Your task to perform on an android device: Open eBay Image 0: 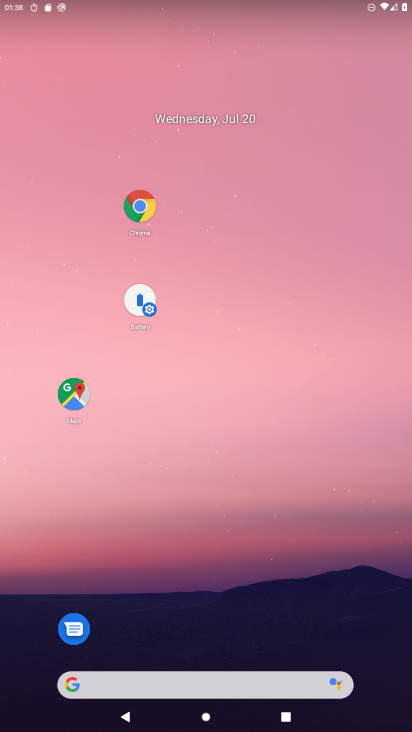
Step 0: drag from (143, 622) to (306, 32)
Your task to perform on an android device: Open eBay Image 1: 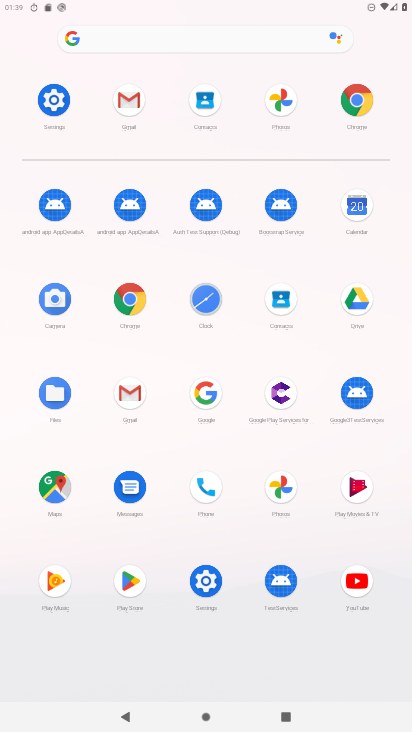
Step 1: click (160, 43)
Your task to perform on an android device: Open eBay Image 2: 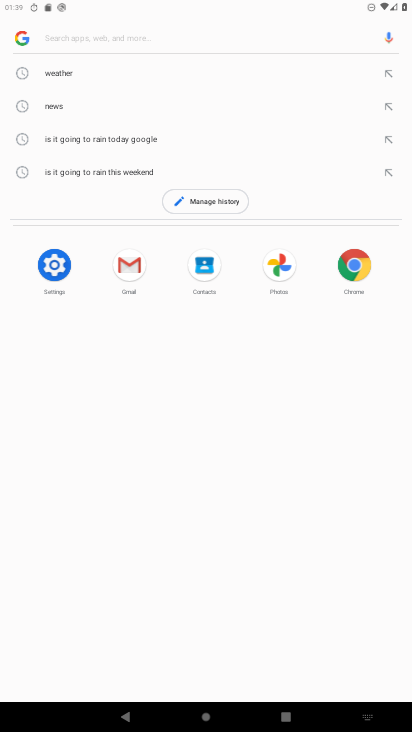
Step 2: type "ebay"
Your task to perform on an android device: Open eBay Image 3: 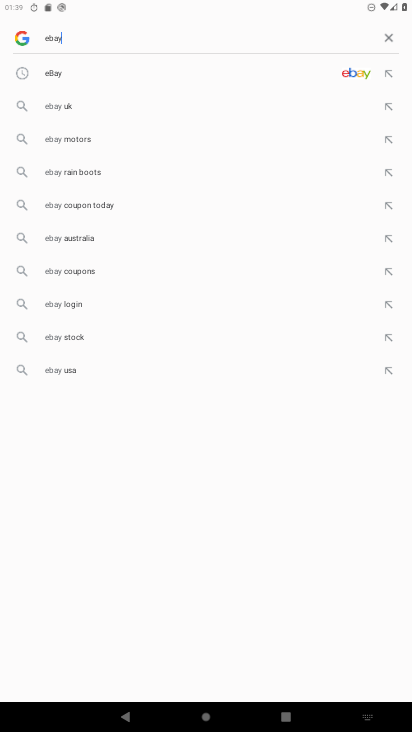
Step 3: click (143, 69)
Your task to perform on an android device: Open eBay Image 4: 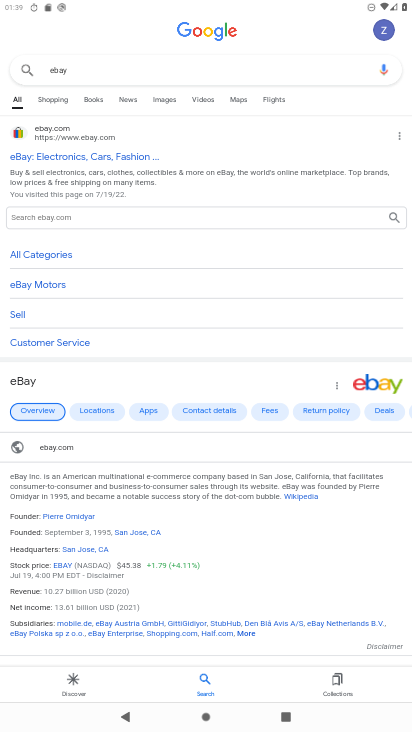
Step 4: click (46, 156)
Your task to perform on an android device: Open eBay Image 5: 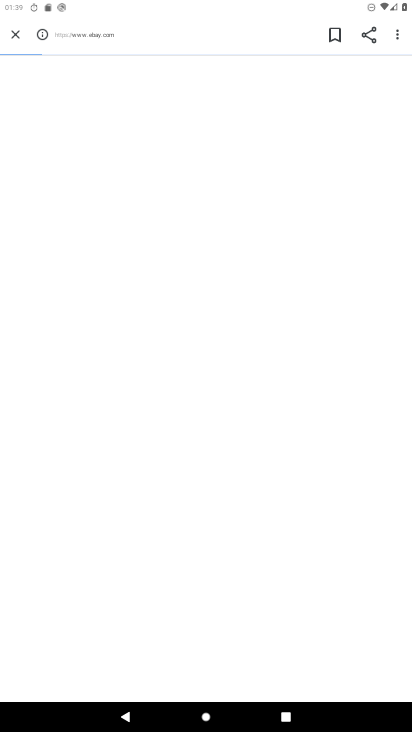
Step 5: task complete